Your task to perform on an android device: set an alarm Image 0: 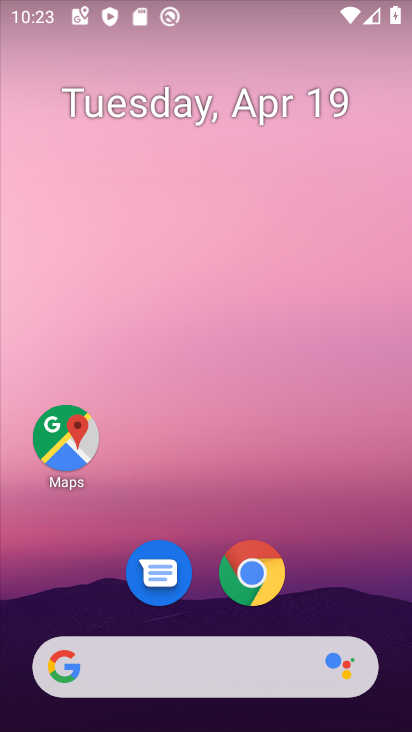
Step 0: drag from (363, 575) to (313, 47)
Your task to perform on an android device: set an alarm Image 1: 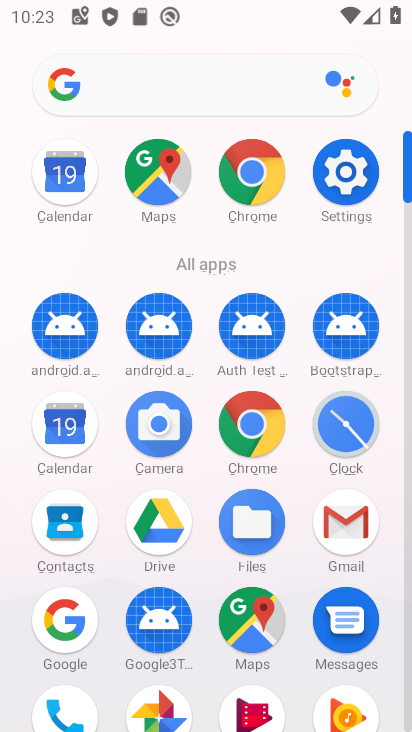
Step 1: click (344, 431)
Your task to perform on an android device: set an alarm Image 2: 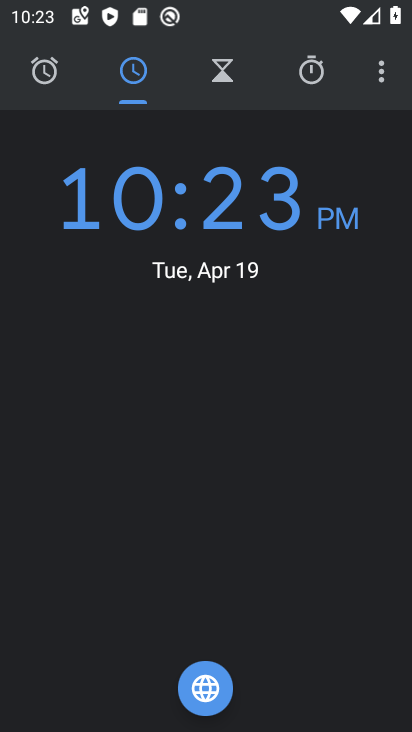
Step 2: click (57, 83)
Your task to perform on an android device: set an alarm Image 3: 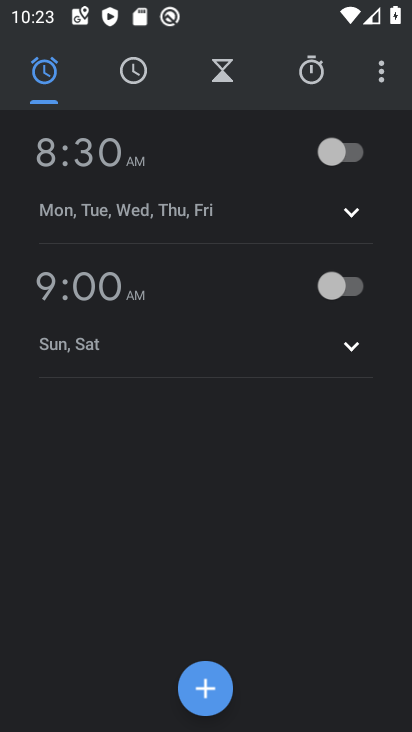
Step 3: click (219, 689)
Your task to perform on an android device: set an alarm Image 4: 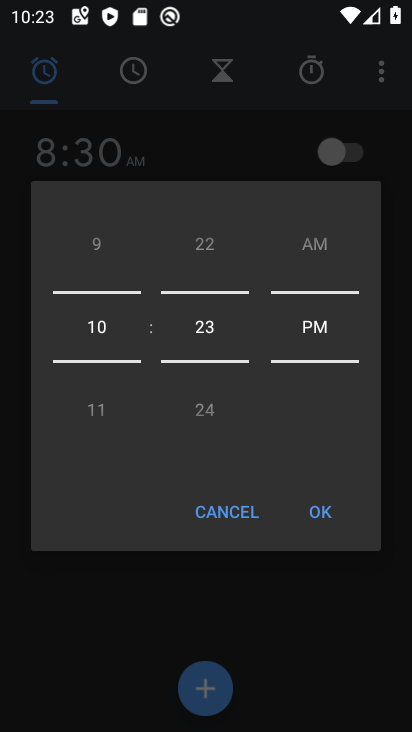
Step 4: click (316, 512)
Your task to perform on an android device: set an alarm Image 5: 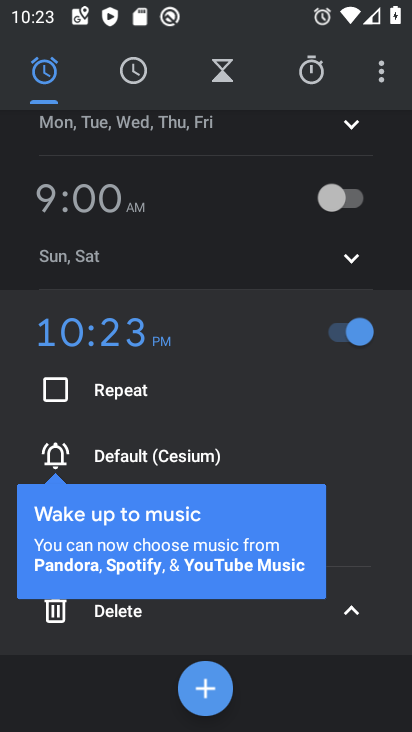
Step 5: click (354, 610)
Your task to perform on an android device: set an alarm Image 6: 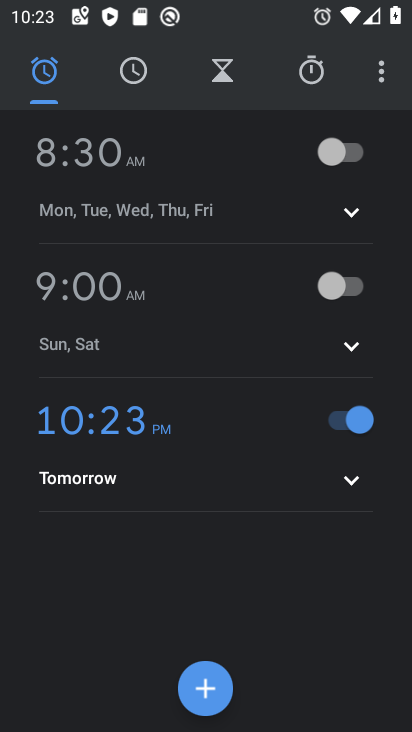
Step 6: task complete